Your task to perform on an android device: Open Google Maps and go to "Timeline" Image 0: 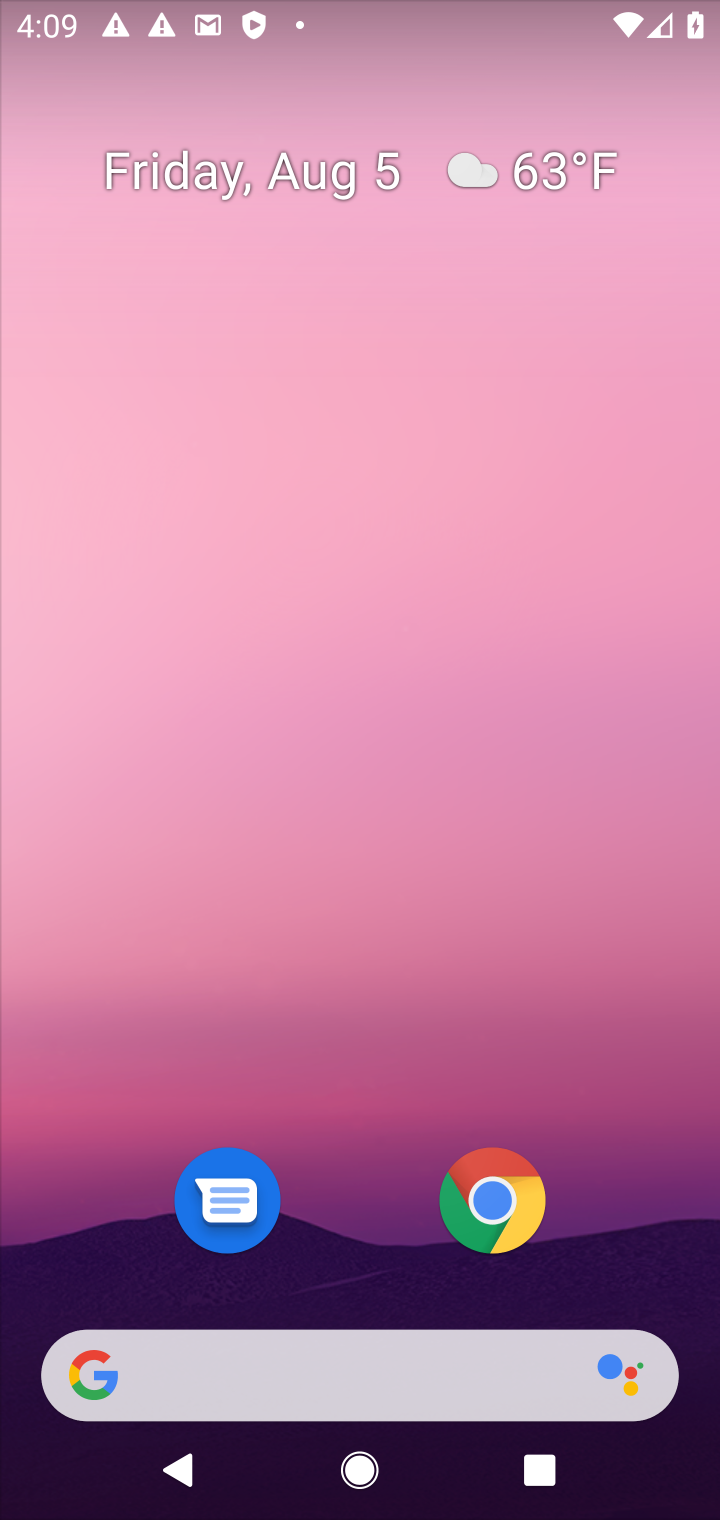
Step 0: press home button
Your task to perform on an android device: Open Google Maps and go to "Timeline" Image 1: 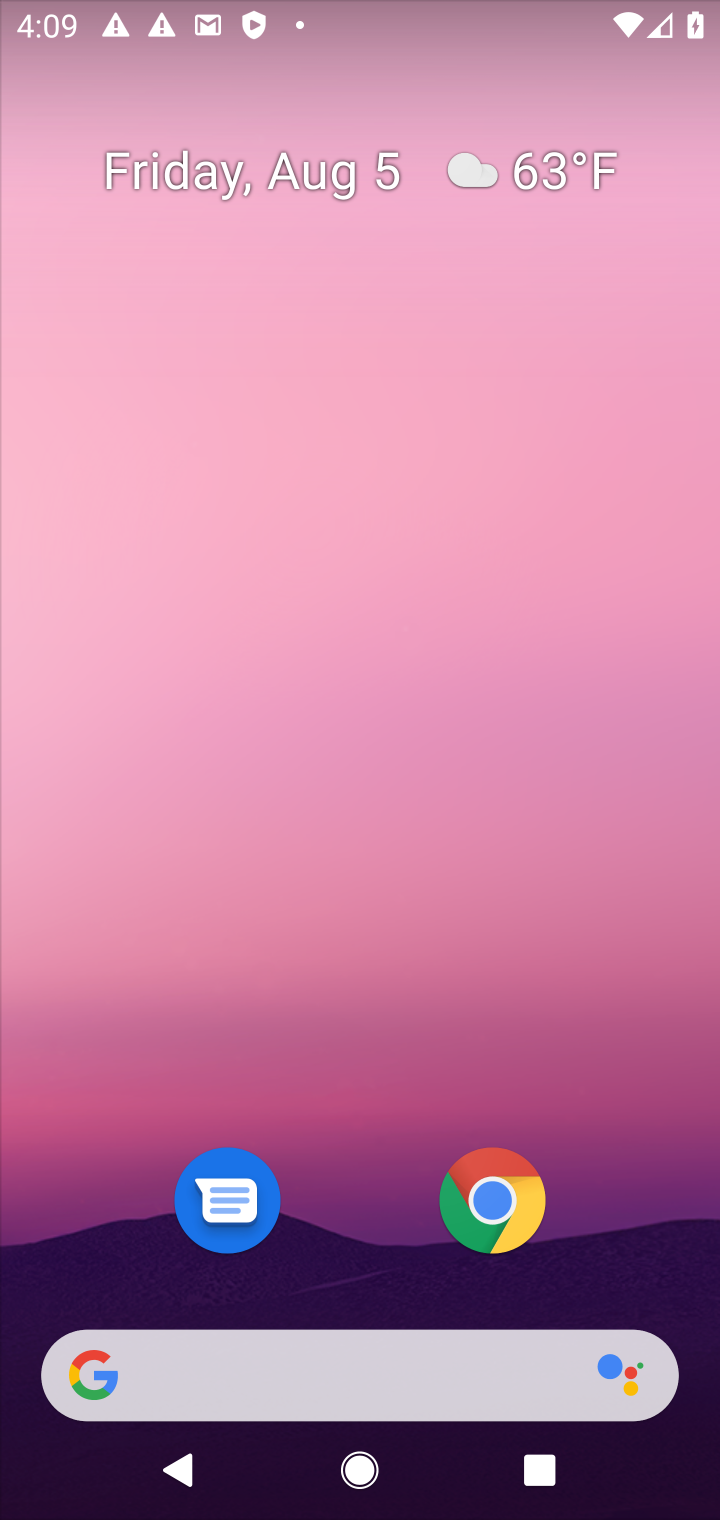
Step 1: drag from (660, 1206) to (389, 214)
Your task to perform on an android device: Open Google Maps and go to "Timeline" Image 2: 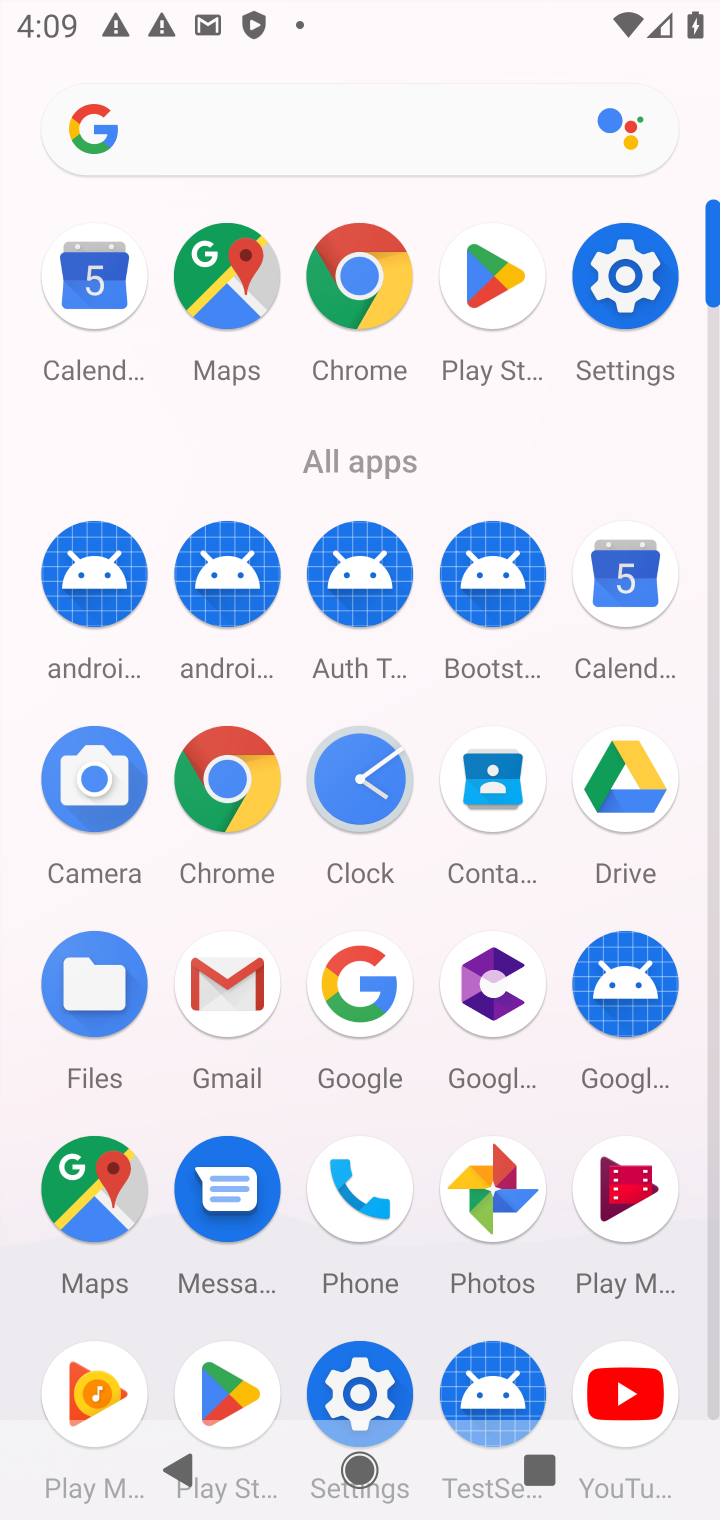
Step 2: click (211, 301)
Your task to perform on an android device: Open Google Maps and go to "Timeline" Image 3: 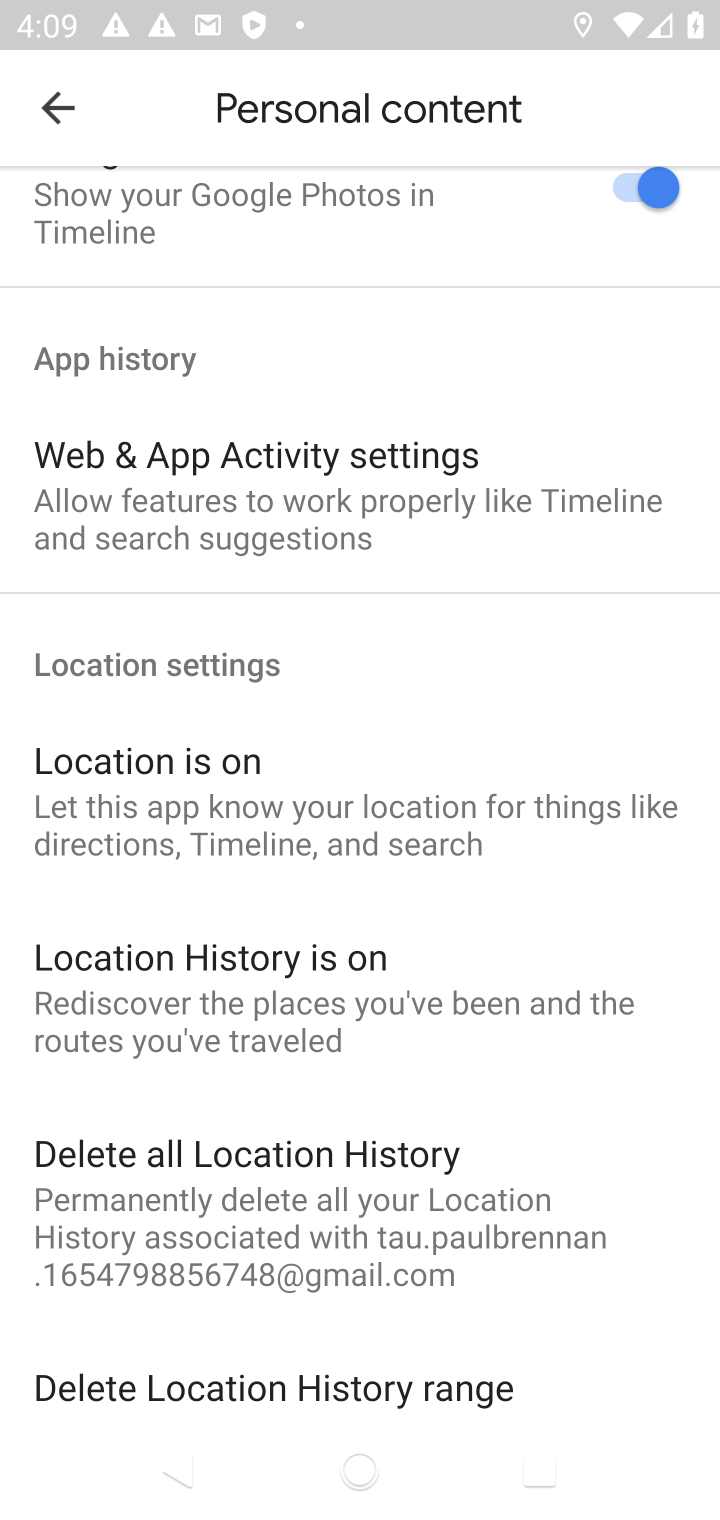
Step 3: click (87, 121)
Your task to perform on an android device: Open Google Maps and go to "Timeline" Image 4: 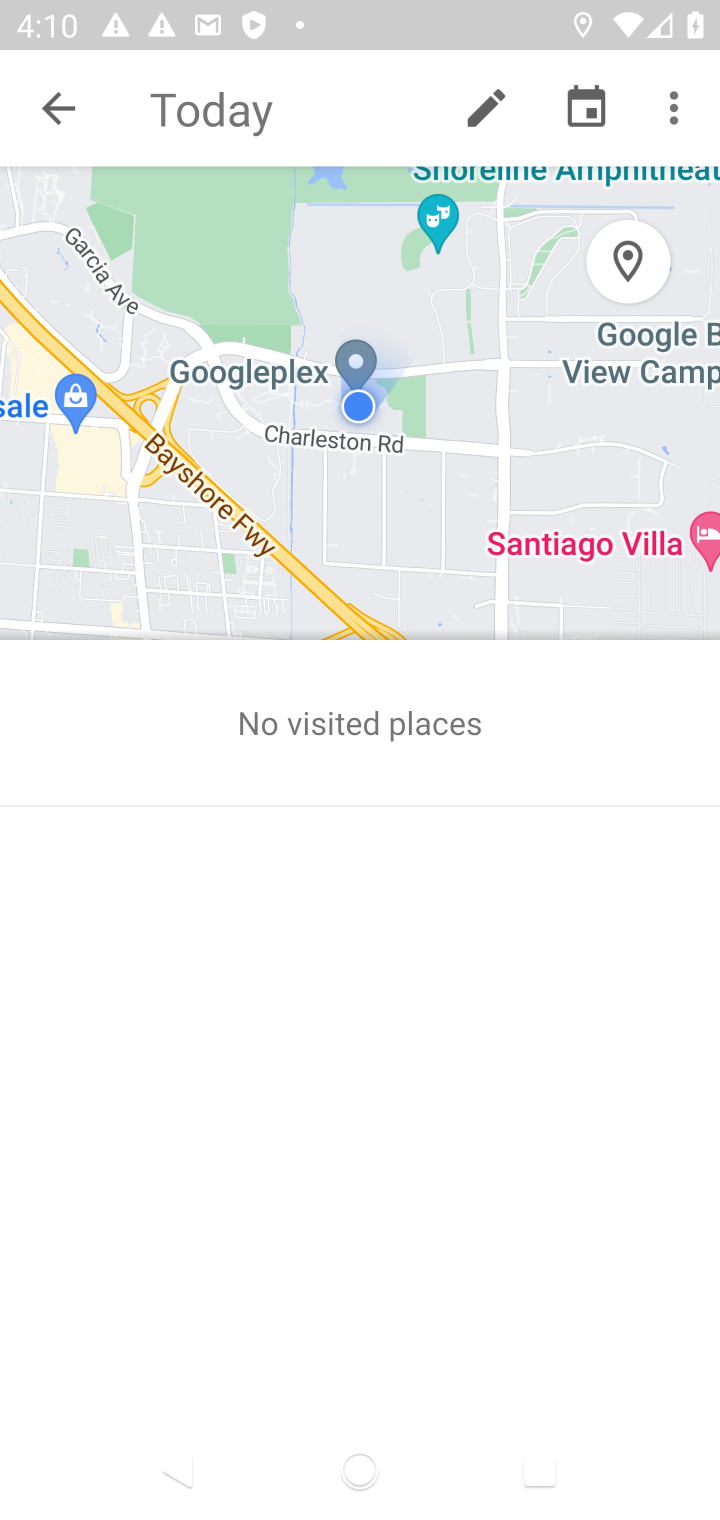
Step 4: task complete